Your task to perform on an android device: Check the weather Image 0: 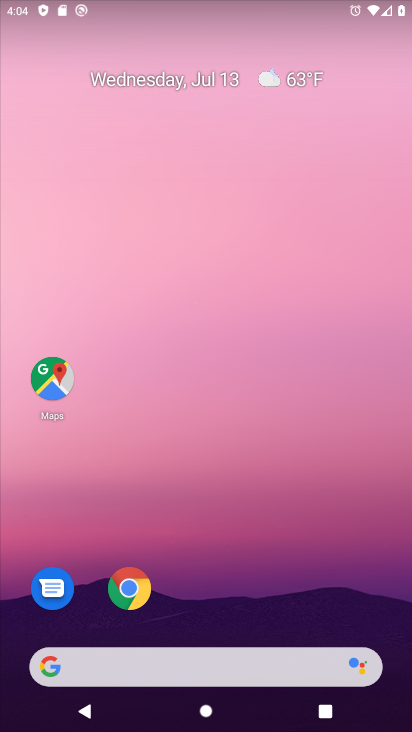
Step 0: drag from (176, 662) to (222, 133)
Your task to perform on an android device: Check the weather Image 1: 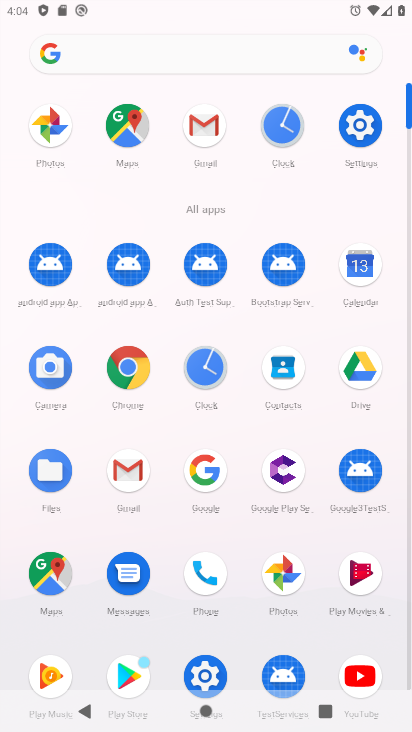
Step 1: click (203, 471)
Your task to perform on an android device: Check the weather Image 2: 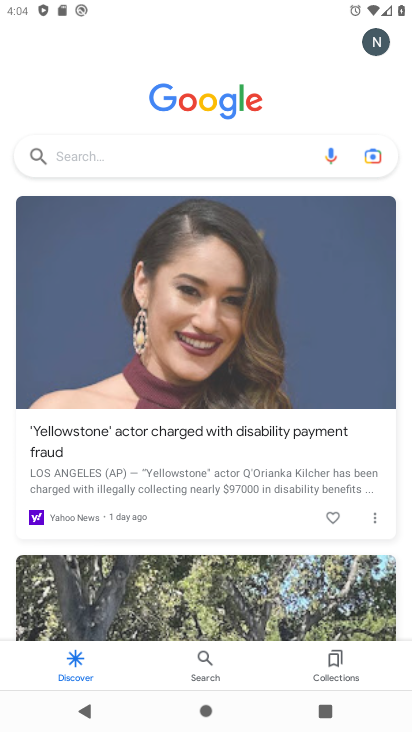
Step 2: click (228, 147)
Your task to perform on an android device: Check the weather Image 3: 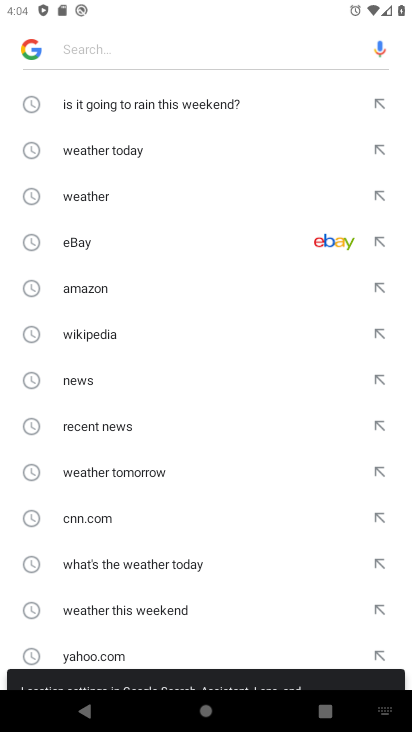
Step 3: click (109, 193)
Your task to perform on an android device: Check the weather Image 4: 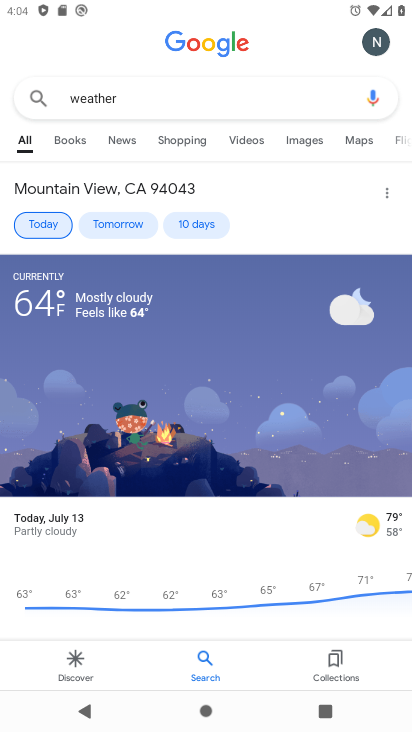
Step 4: task complete